Your task to perform on an android device: toggle location history Image 0: 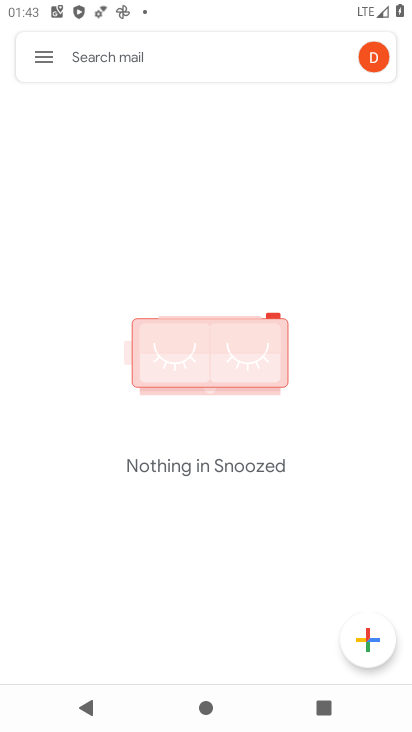
Step 0: press home button
Your task to perform on an android device: toggle location history Image 1: 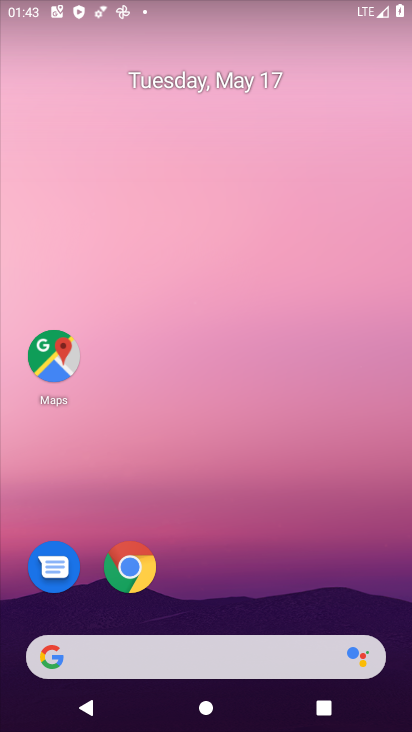
Step 1: click (55, 352)
Your task to perform on an android device: toggle location history Image 2: 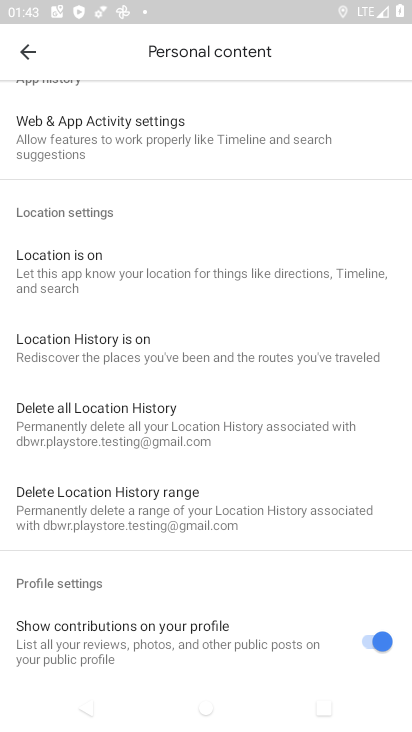
Step 2: click (91, 345)
Your task to perform on an android device: toggle location history Image 3: 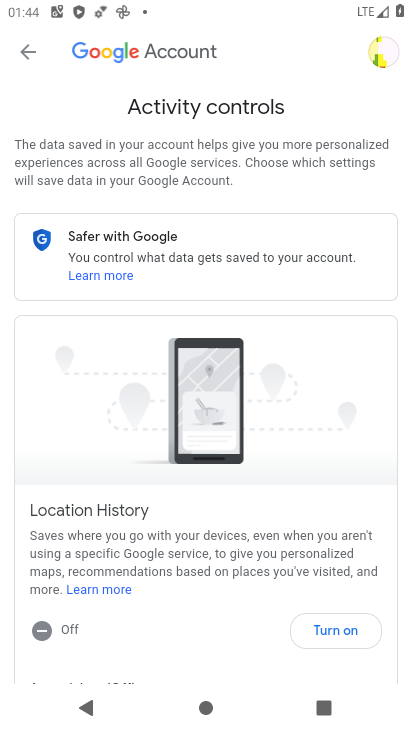
Step 3: click (332, 628)
Your task to perform on an android device: toggle location history Image 4: 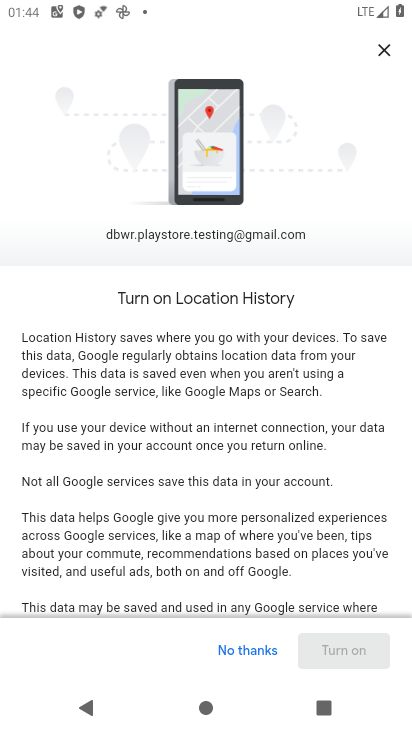
Step 4: drag from (317, 594) to (294, 84)
Your task to perform on an android device: toggle location history Image 5: 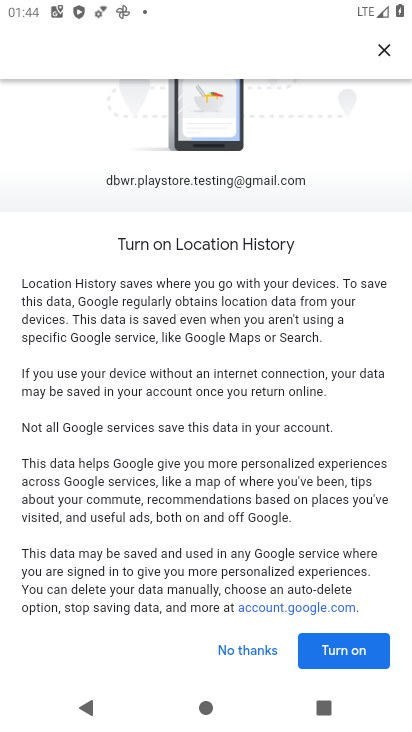
Step 5: click (349, 645)
Your task to perform on an android device: toggle location history Image 6: 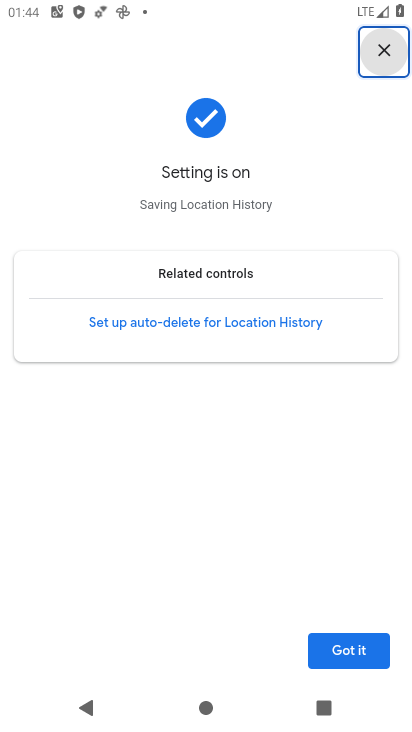
Step 6: click (346, 654)
Your task to perform on an android device: toggle location history Image 7: 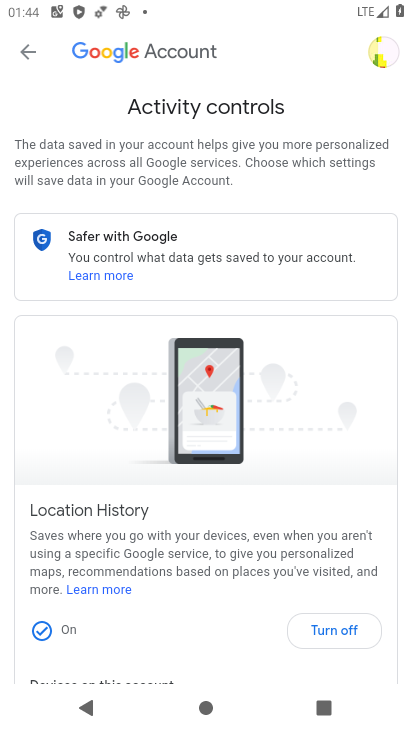
Step 7: task complete